Your task to perform on an android device: Open my contact list Image 0: 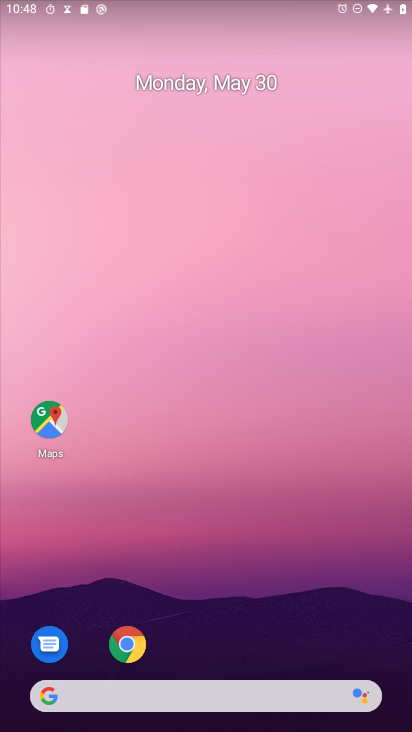
Step 0: drag from (204, 622) to (323, 22)
Your task to perform on an android device: Open my contact list Image 1: 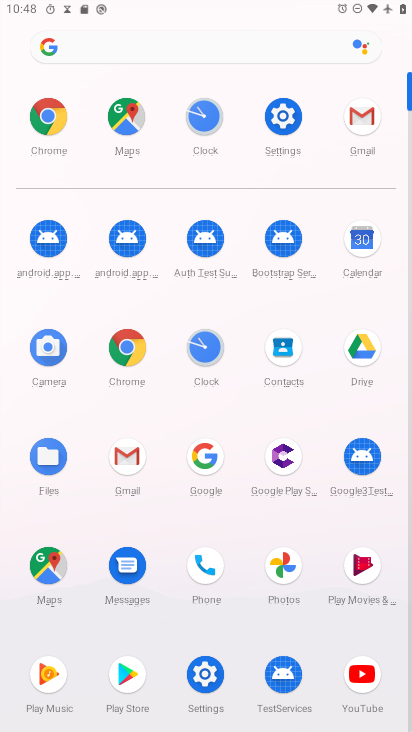
Step 1: click (276, 340)
Your task to perform on an android device: Open my contact list Image 2: 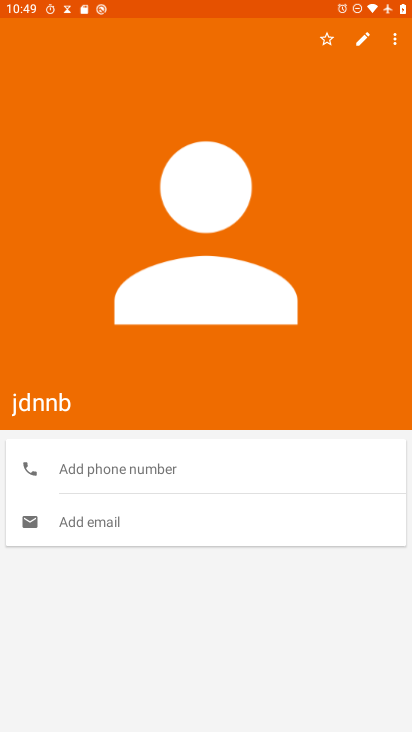
Step 2: task complete